Your task to perform on an android device: toggle javascript in the chrome app Image 0: 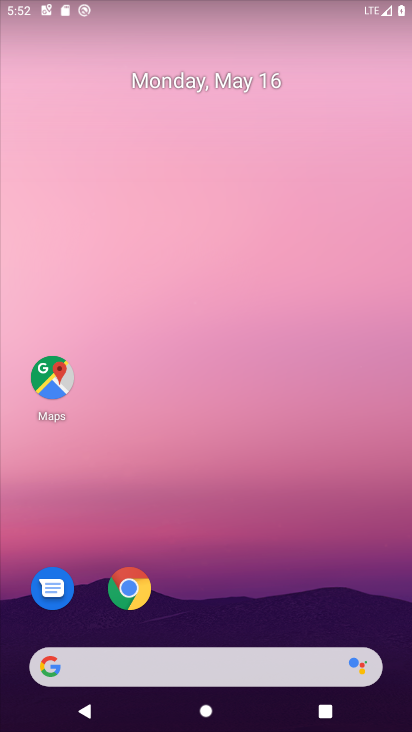
Step 0: click (128, 584)
Your task to perform on an android device: toggle javascript in the chrome app Image 1: 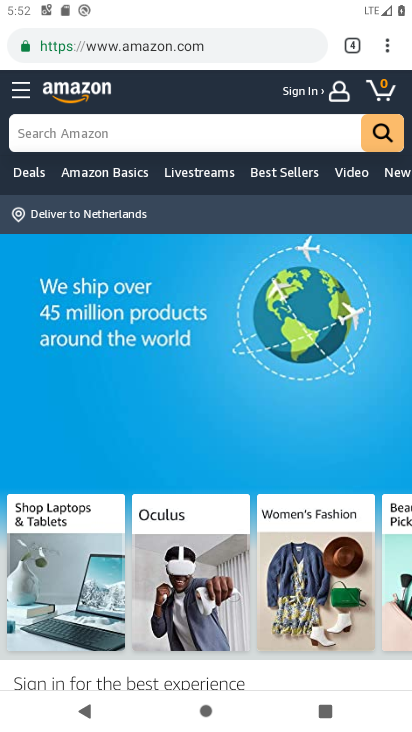
Step 1: click (398, 46)
Your task to perform on an android device: toggle javascript in the chrome app Image 2: 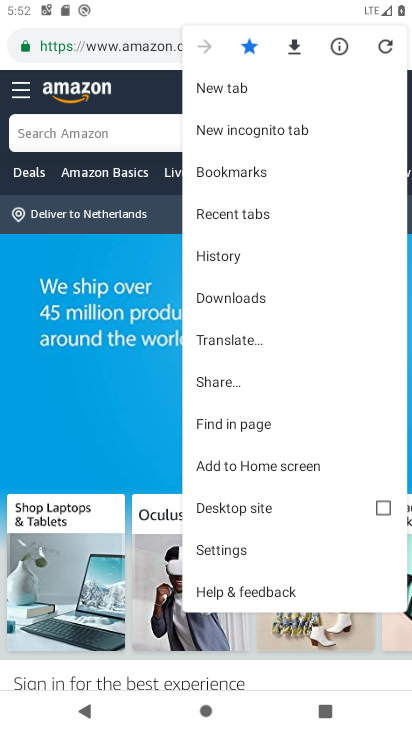
Step 2: click (236, 543)
Your task to perform on an android device: toggle javascript in the chrome app Image 3: 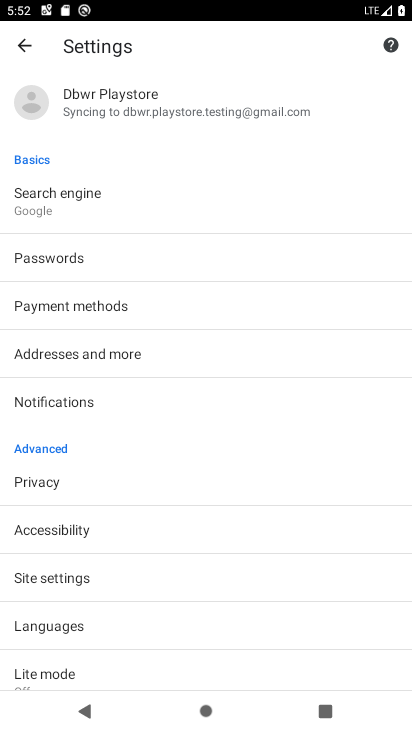
Step 3: click (132, 562)
Your task to perform on an android device: toggle javascript in the chrome app Image 4: 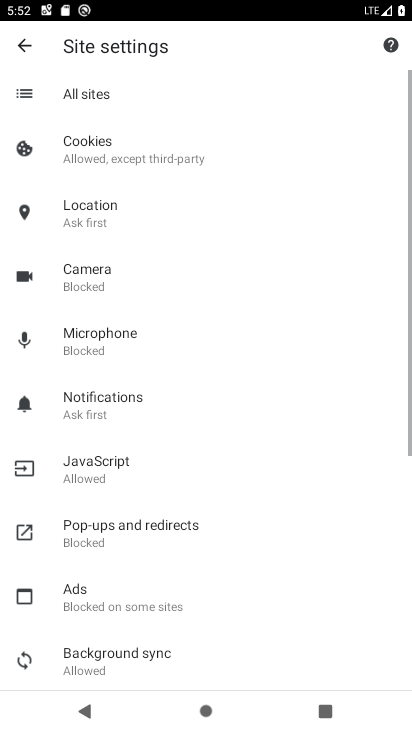
Step 4: click (134, 476)
Your task to perform on an android device: toggle javascript in the chrome app Image 5: 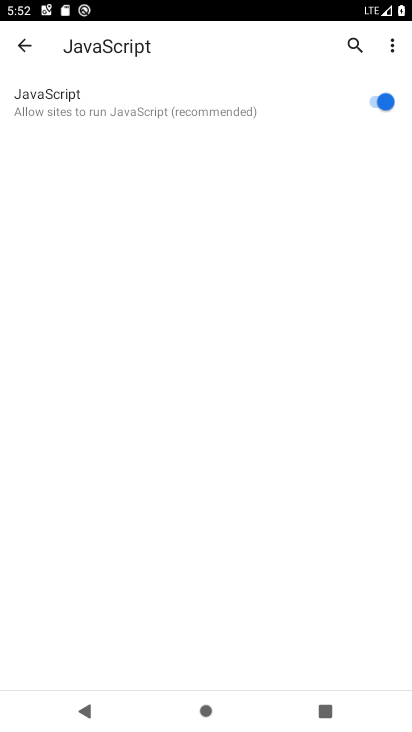
Step 5: click (375, 94)
Your task to perform on an android device: toggle javascript in the chrome app Image 6: 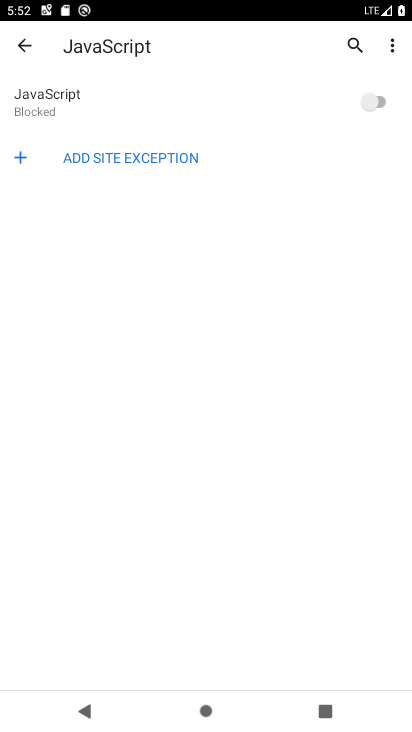
Step 6: task complete